Your task to perform on an android device: delete a single message in the gmail app Image 0: 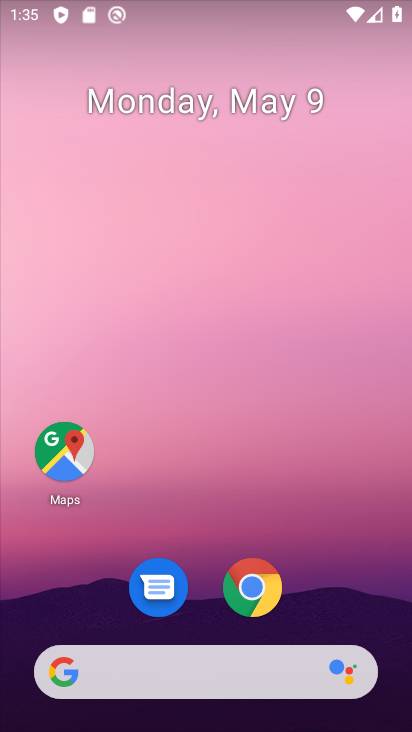
Step 0: drag from (205, 616) to (266, 30)
Your task to perform on an android device: delete a single message in the gmail app Image 1: 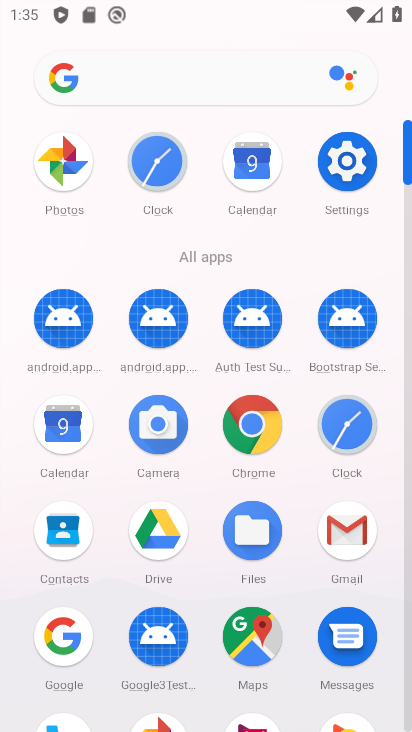
Step 1: click (366, 534)
Your task to perform on an android device: delete a single message in the gmail app Image 2: 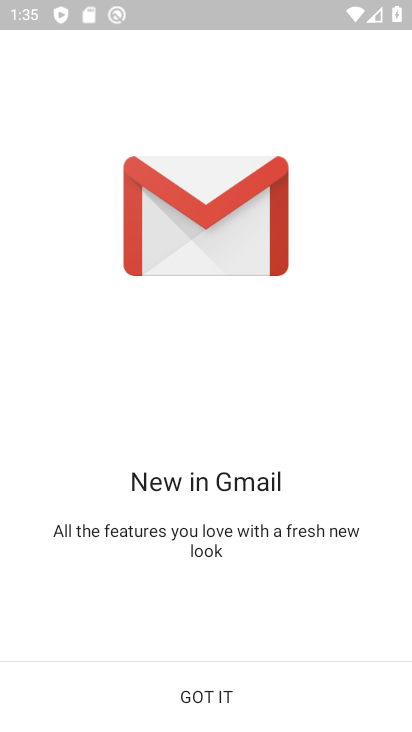
Step 2: click (208, 693)
Your task to perform on an android device: delete a single message in the gmail app Image 3: 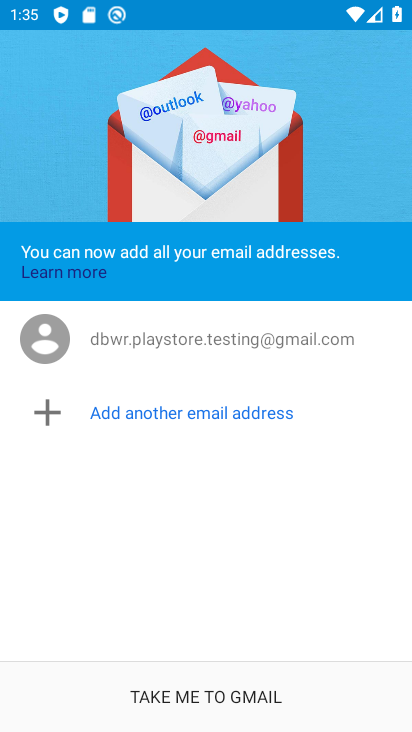
Step 3: click (208, 693)
Your task to perform on an android device: delete a single message in the gmail app Image 4: 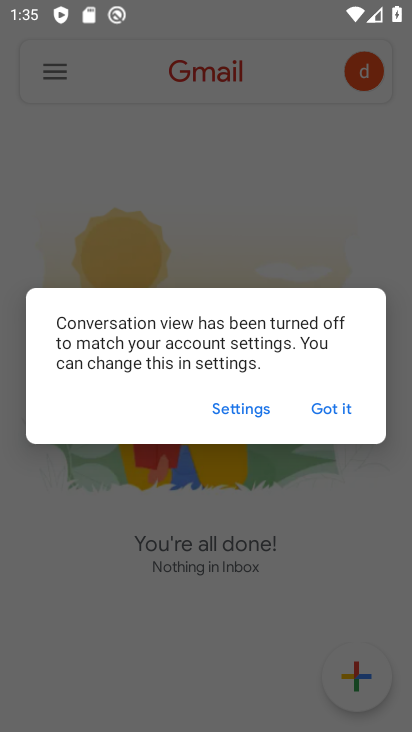
Step 4: click (327, 406)
Your task to perform on an android device: delete a single message in the gmail app Image 5: 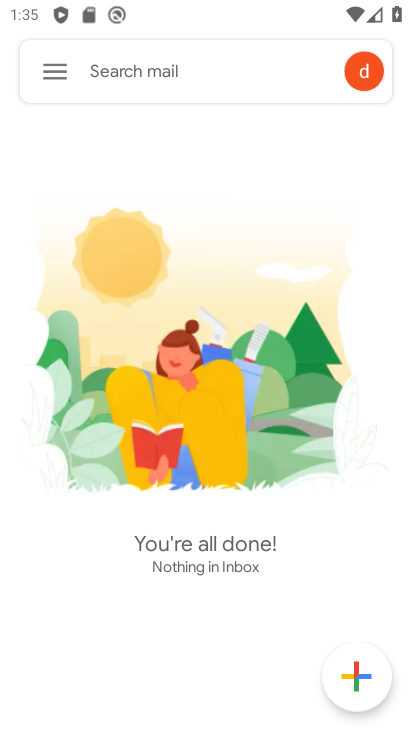
Step 5: task complete